Your task to perform on an android device: turn off javascript in the chrome app Image 0: 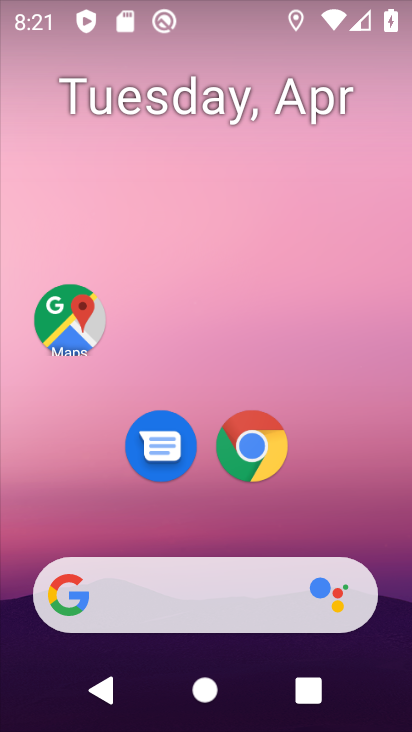
Step 0: click (246, 448)
Your task to perform on an android device: turn off javascript in the chrome app Image 1: 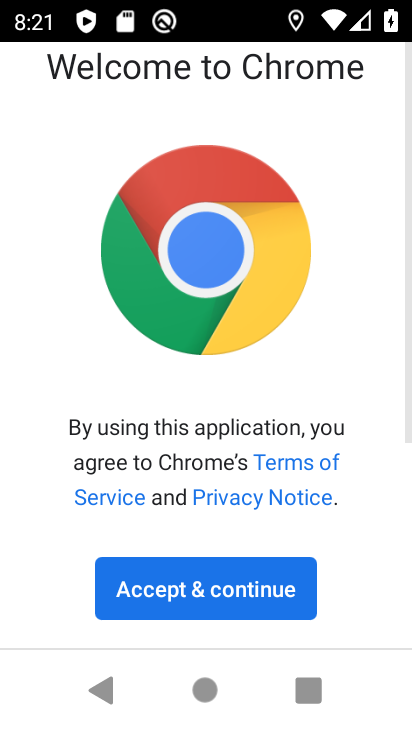
Step 1: click (207, 573)
Your task to perform on an android device: turn off javascript in the chrome app Image 2: 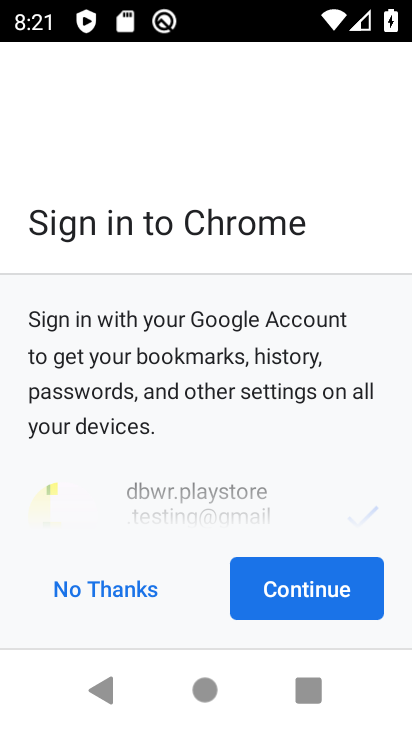
Step 2: click (320, 592)
Your task to perform on an android device: turn off javascript in the chrome app Image 3: 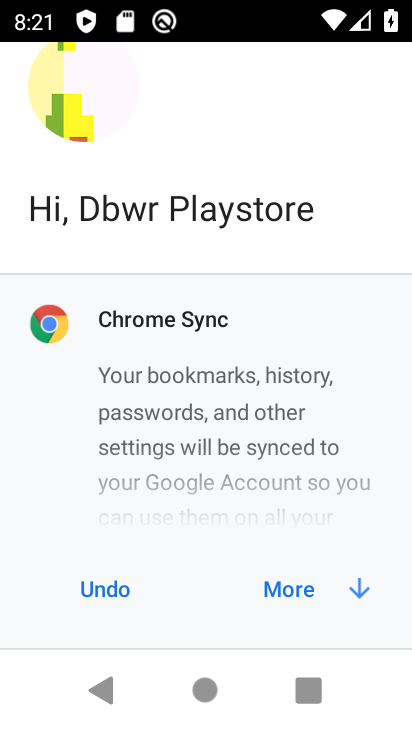
Step 3: click (320, 592)
Your task to perform on an android device: turn off javascript in the chrome app Image 4: 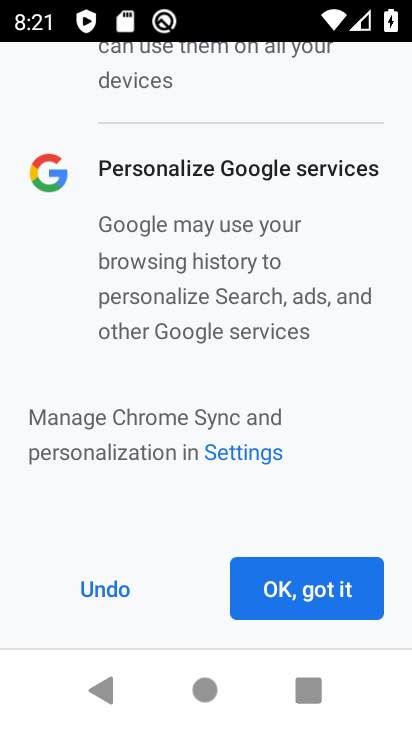
Step 4: click (320, 592)
Your task to perform on an android device: turn off javascript in the chrome app Image 5: 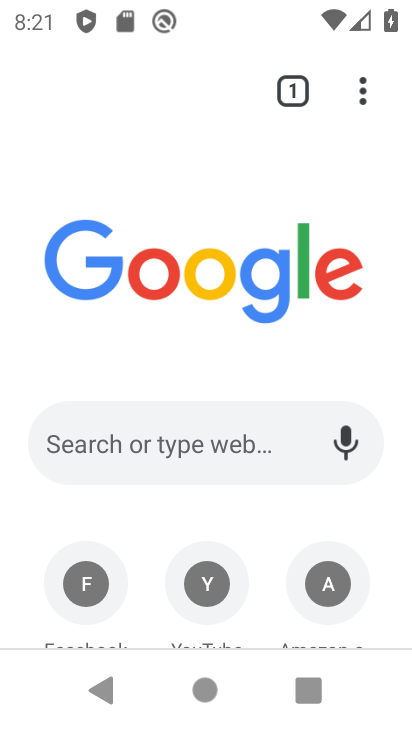
Step 5: click (358, 88)
Your task to perform on an android device: turn off javascript in the chrome app Image 6: 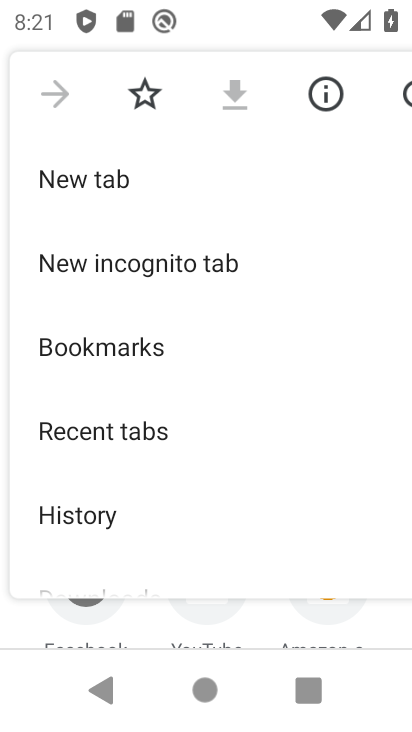
Step 6: drag from (139, 540) to (182, 189)
Your task to perform on an android device: turn off javascript in the chrome app Image 7: 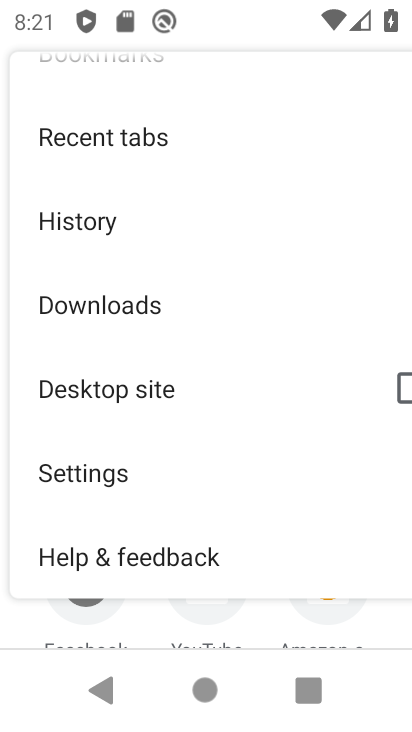
Step 7: click (97, 470)
Your task to perform on an android device: turn off javascript in the chrome app Image 8: 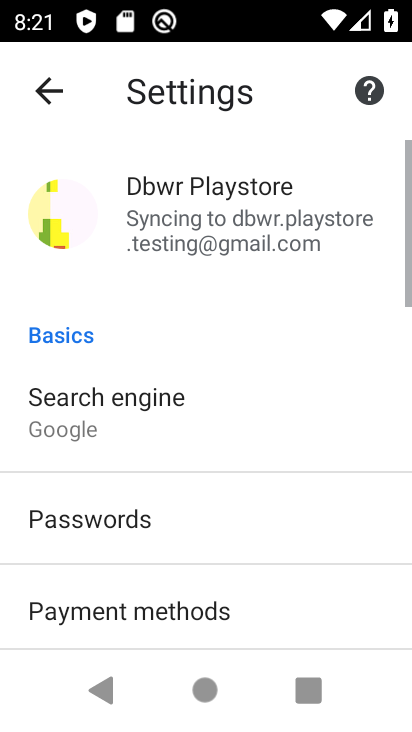
Step 8: drag from (128, 566) to (116, 197)
Your task to perform on an android device: turn off javascript in the chrome app Image 9: 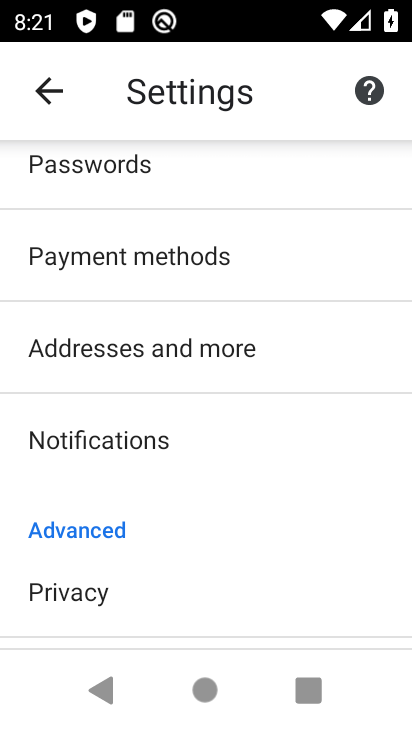
Step 9: drag from (95, 614) to (113, 273)
Your task to perform on an android device: turn off javascript in the chrome app Image 10: 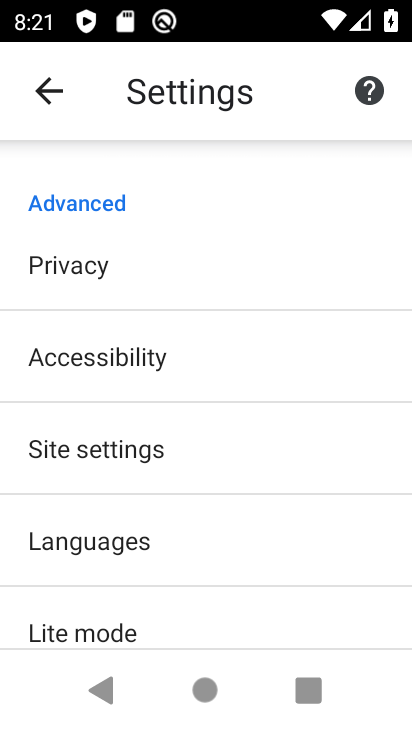
Step 10: click (88, 443)
Your task to perform on an android device: turn off javascript in the chrome app Image 11: 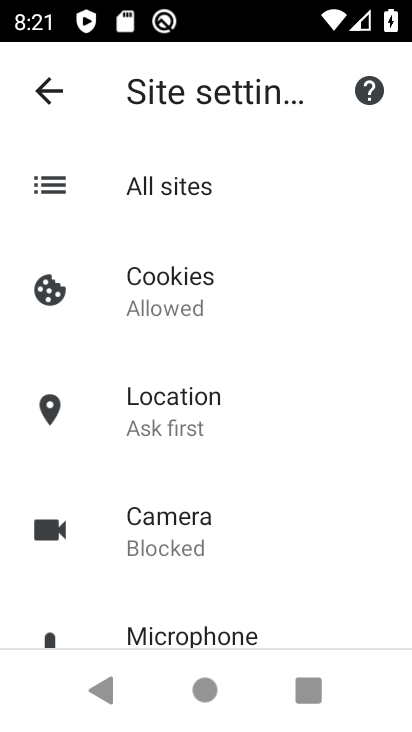
Step 11: drag from (184, 588) to (188, 274)
Your task to perform on an android device: turn off javascript in the chrome app Image 12: 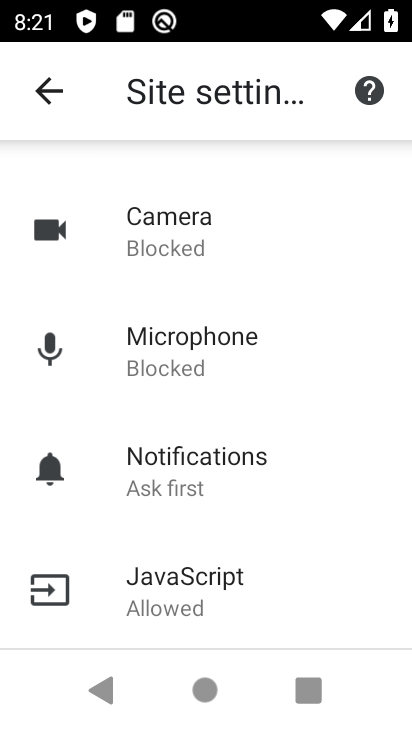
Step 12: click (155, 601)
Your task to perform on an android device: turn off javascript in the chrome app Image 13: 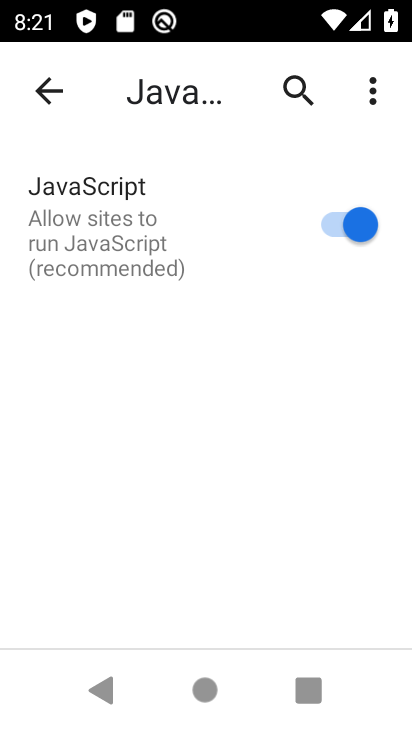
Step 13: click (364, 218)
Your task to perform on an android device: turn off javascript in the chrome app Image 14: 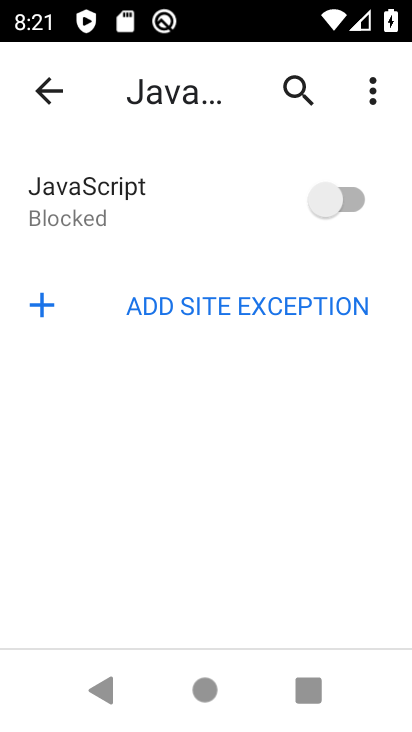
Step 14: task complete